Your task to perform on an android device: Do I have any events this weekend? Image 0: 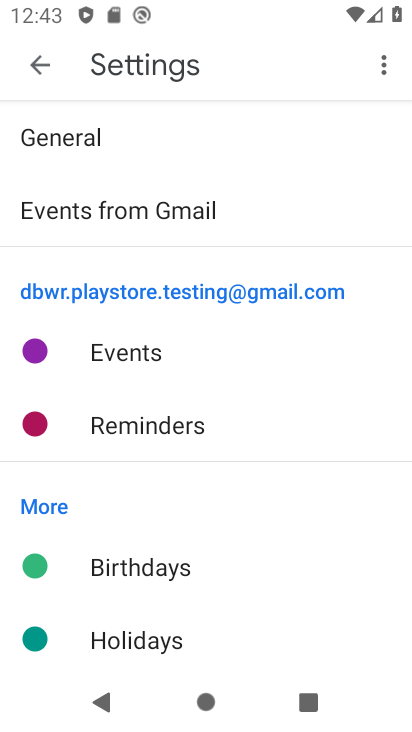
Step 0: press home button
Your task to perform on an android device: Do I have any events this weekend? Image 1: 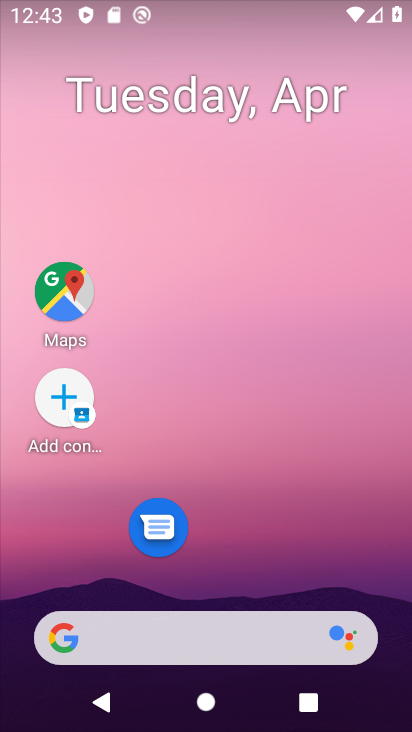
Step 1: drag from (265, 566) to (266, 45)
Your task to perform on an android device: Do I have any events this weekend? Image 2: 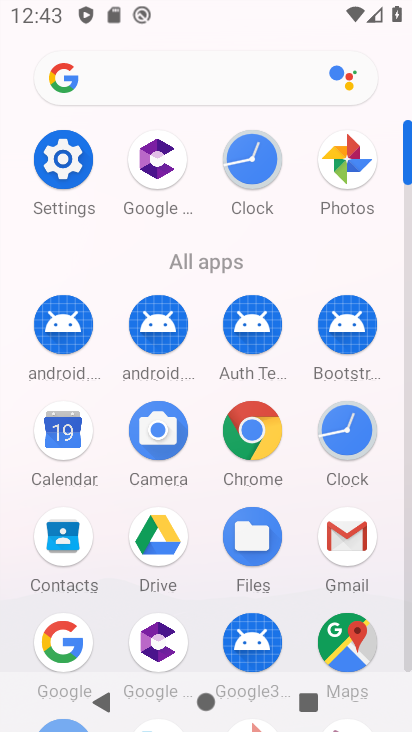
Step 2: click (54, 437)
Your task to perform on an android device: Do I have any events this weekend? Image 3: 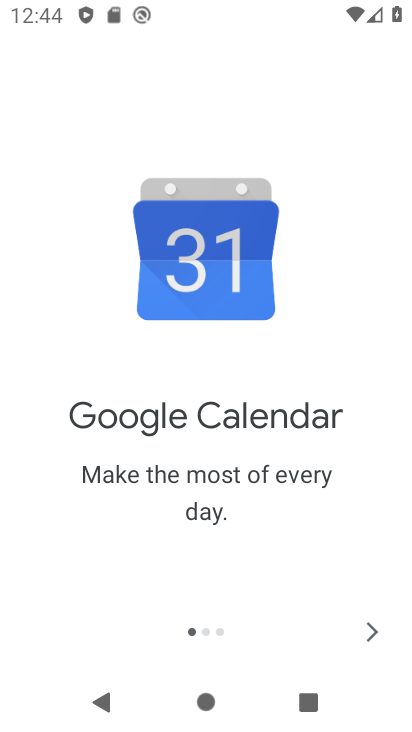
Step 3: click (373, 634)
Your task to perform on an android device: Do I have any events this weekend? Image 4: 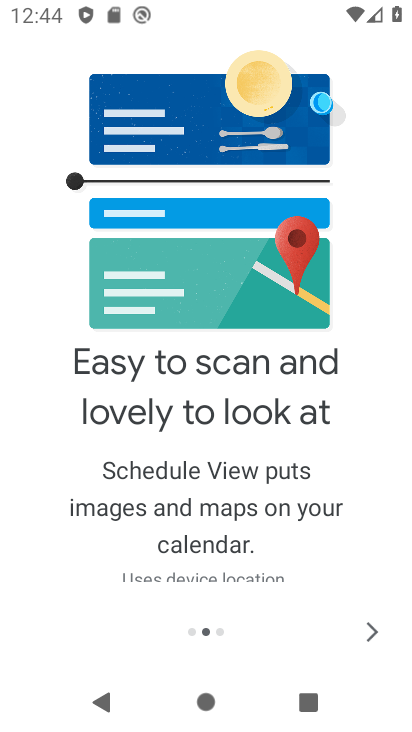
Step 4: click (373, 634)
Your task to perform on an android device: Do I have any events this weekend? Image 5: 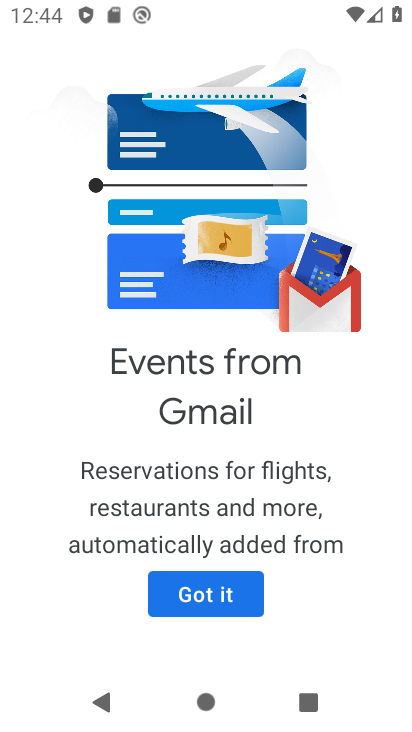
Step 5: click (192, 595)
Your task to perform on an android device: Do I have any events this weekend? Image 6: 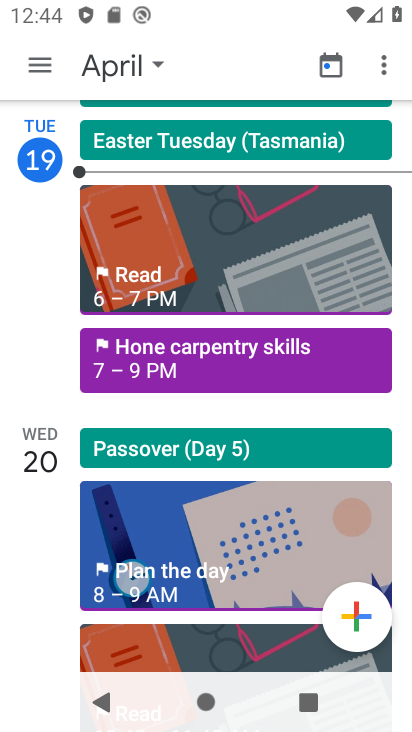
Step 6: click (159, 64)
Your task to perform on an android device: Do I have any events this weekend? Image 7: 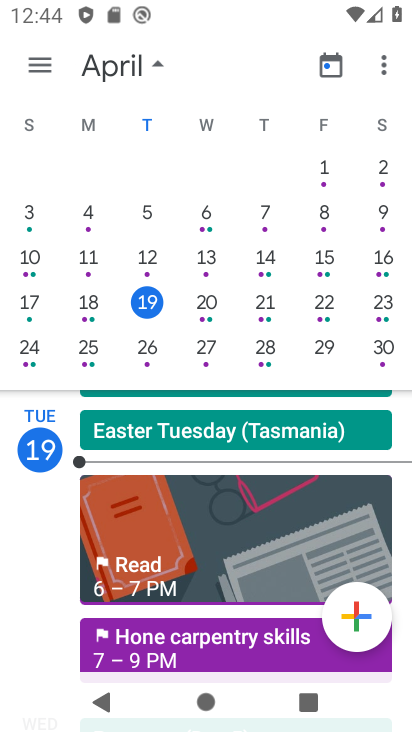
Step 7: click (381, 300)
Your task to perform on an android device: Do I have any events this weekend? Image 8: 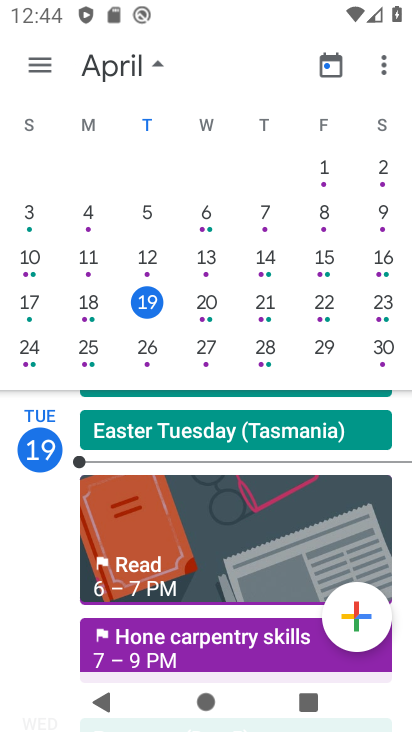
Step 8: click (381, 300)
Your task to perform on an android device: Do I have any events this weekend? Image 9: 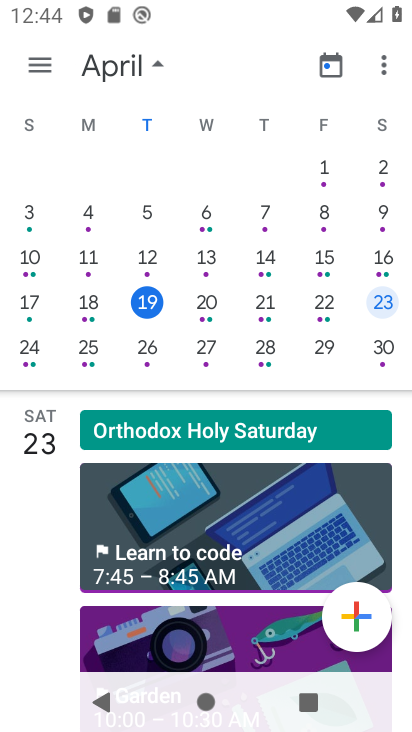
Step 9: task complete